Your task to perform on an android device: Open battery settings Image 0: 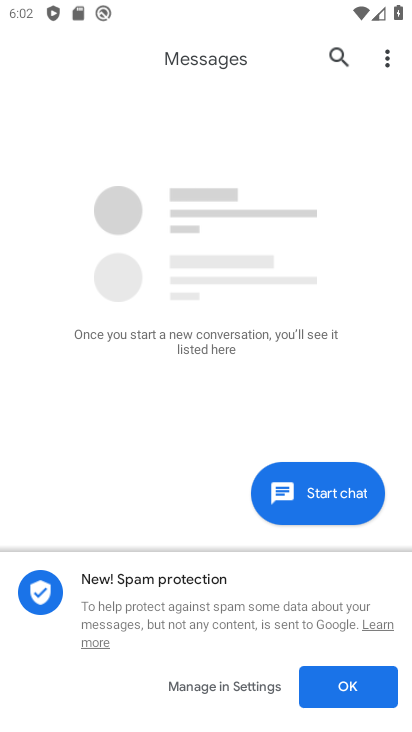
Step 0: press home button
Your task to perform on an android device: Open battery settings Image 1: 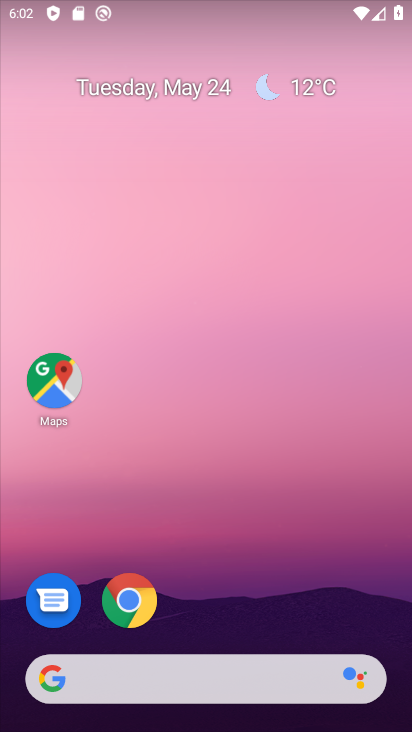
Step 1: drag from (304, 669) to (378, 18)
Your task to perform on an android device: Open battery settings Image 2: 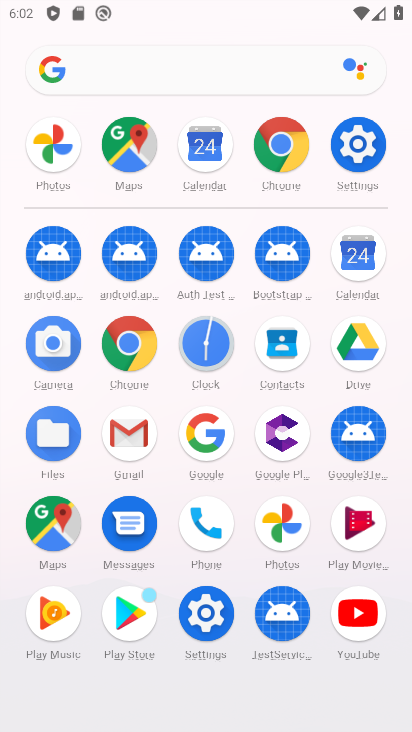
Step 2: click (354, 143)
Your task to perform on an android device: Open battery settings Image 3: 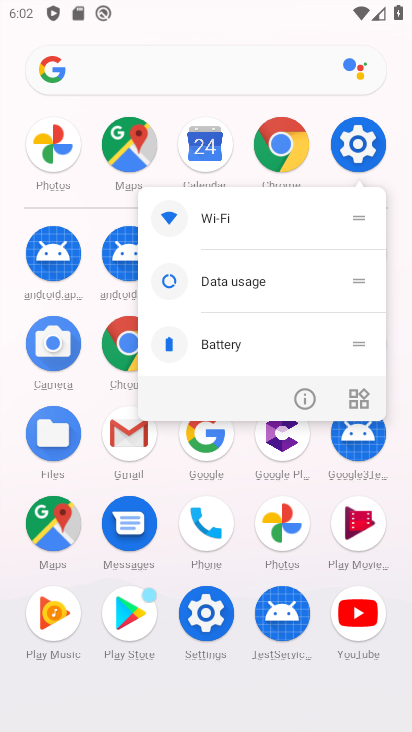
Step 3: click (352, 151)
Your task to perform on an android device: Open battery settings Image 4: 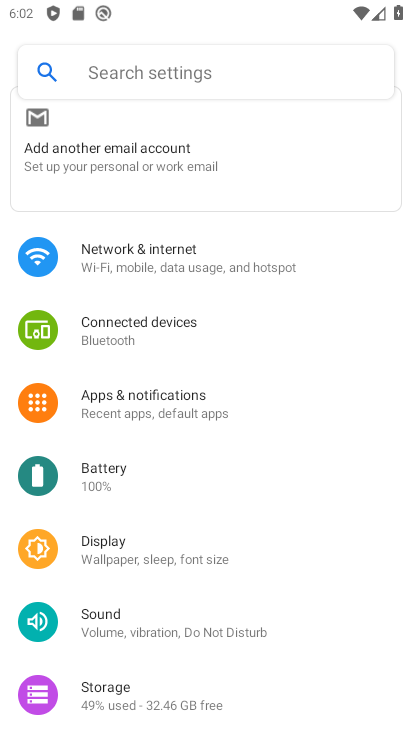
Step 4: click (99, 469)
Your task to perform on an android device: Open battery settings Image 5: 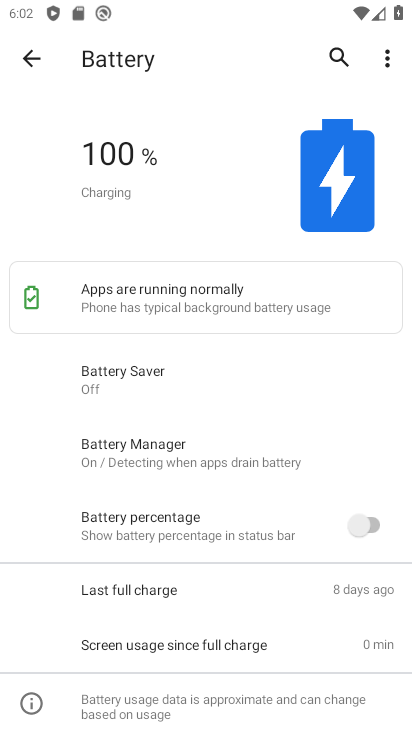
Step 5: task complete